Your task to perform on an android device: turn smart compose on in the gmail app Image 0: 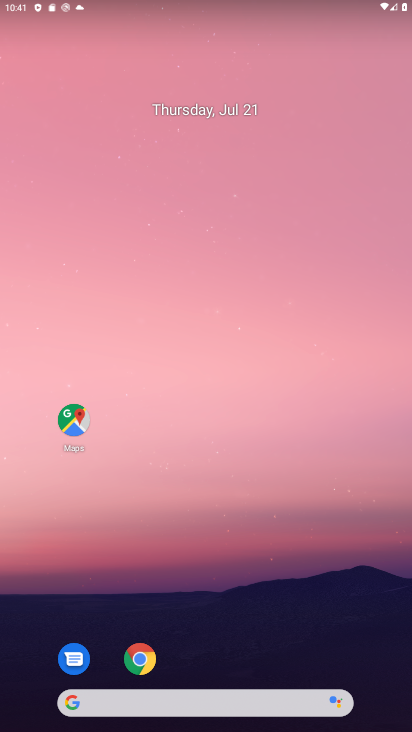
Step 0: drag from (279, 669) to (267, 104)
Your task to perform on an android device: turn smart compose on in the gmail app Image 1: 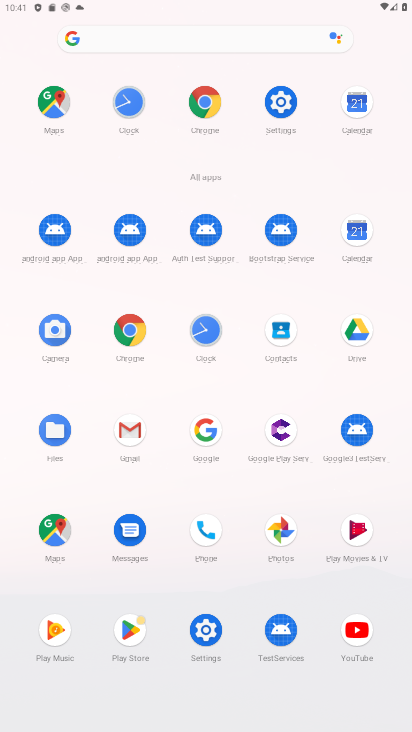
Step 1: click (121, 441)
Your task to perform on an android device: turn smart compose on in the gmail app Image 2: 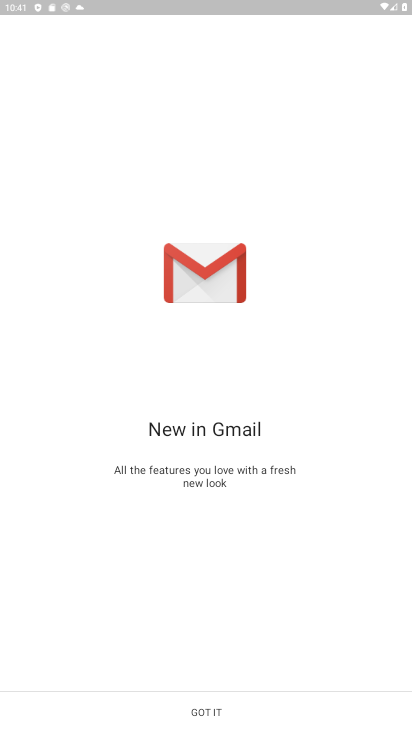
Step 2: click (209, 725)
Your task to perform on an android device: turn smart compose on in the gmail app Image 3: 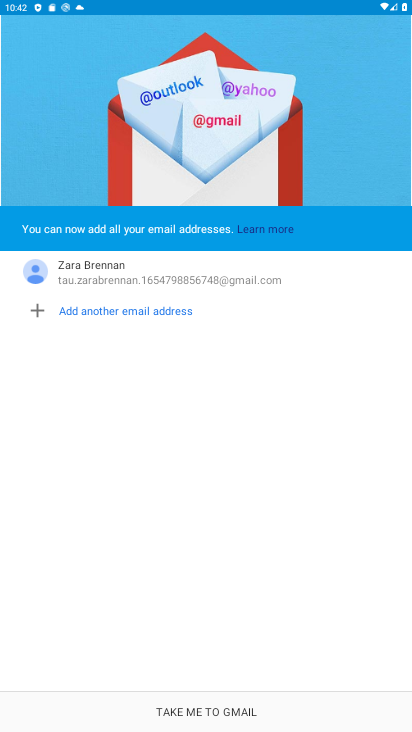
Step 3: click (191, 707)
Your task to perform on an android device: turn smart compose on in the gmail app Image 4: 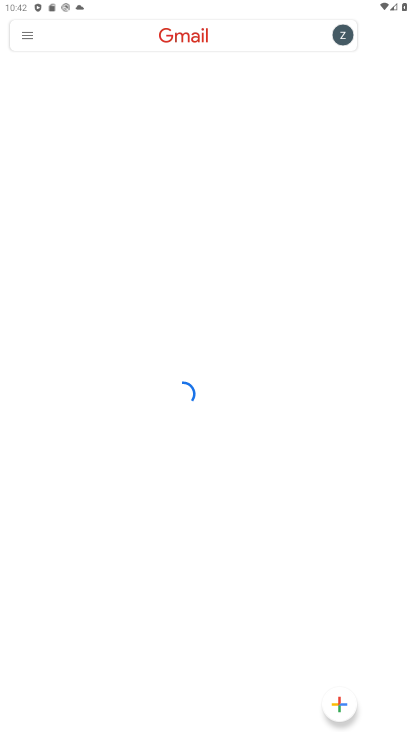
Step 4: task complete